Your task to perform on an android device: Is it going to rain this weekend? Image 0: 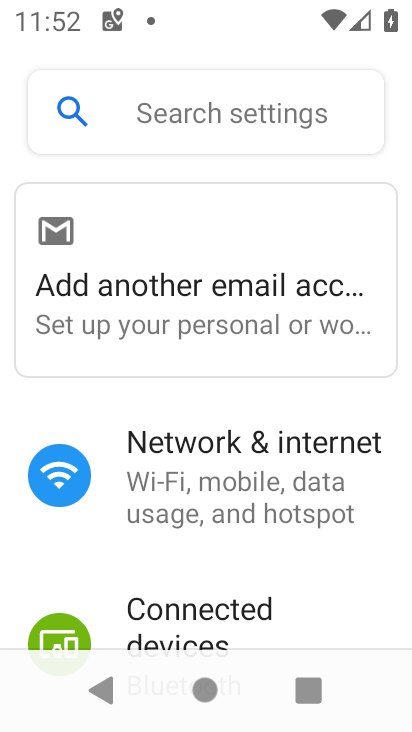
Step 0: press home button
Your task to perform on an android device: Is it going to rain this weekend? Image 1: 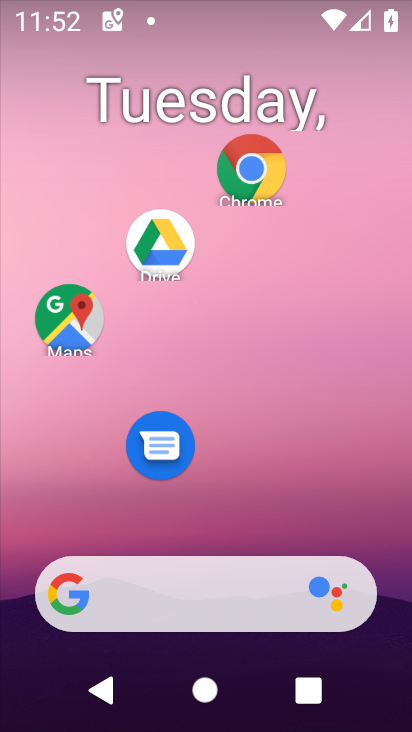
Step 1: drag from (239, 467) to (217, 119)
Your task to perform on an android device: Is it going to rain this weekend? Image 2: 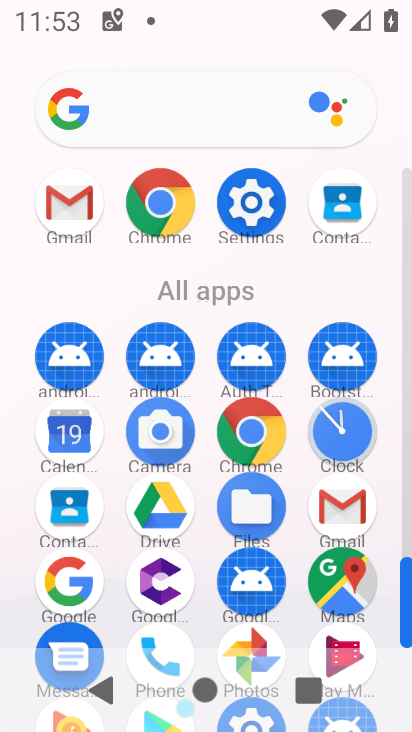
Step 2: drag from (198, 537) to (198, 241)
Your task to perform on an android device: Is it going to rain this weekend? Image 3: 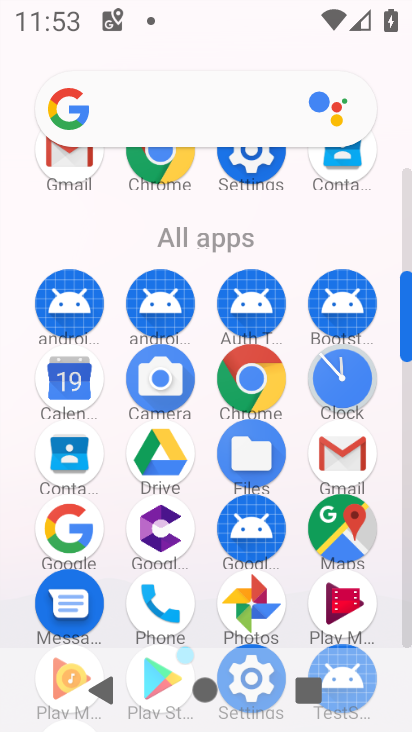
Step 3: click (72, 513)
Your task to perform on an android device: Is it going to rain this weekend? Image 4: 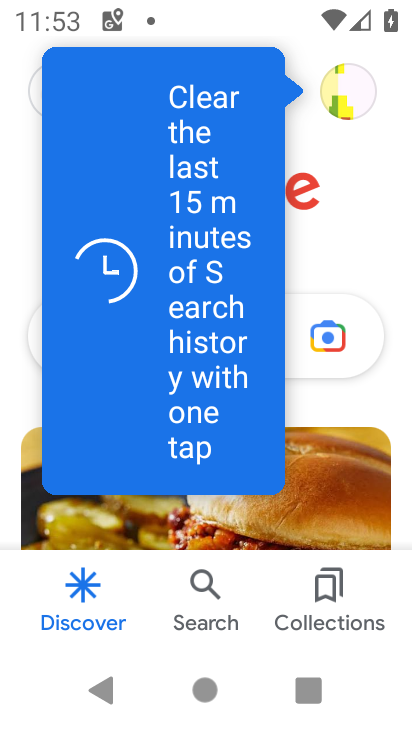
Step 4: click (76, 154)
Your task to perform on an android device: Is it going to rain this weekend? Image 5: 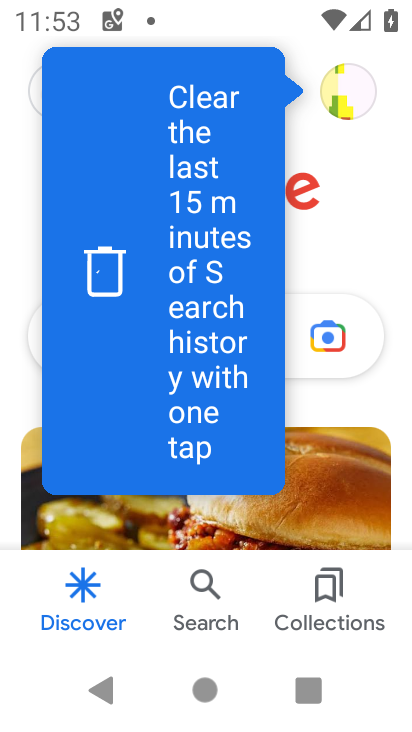
Step 5: click (24, 112)
Your task to perform on an android device: Is it going to rain this weekend? Image 6: 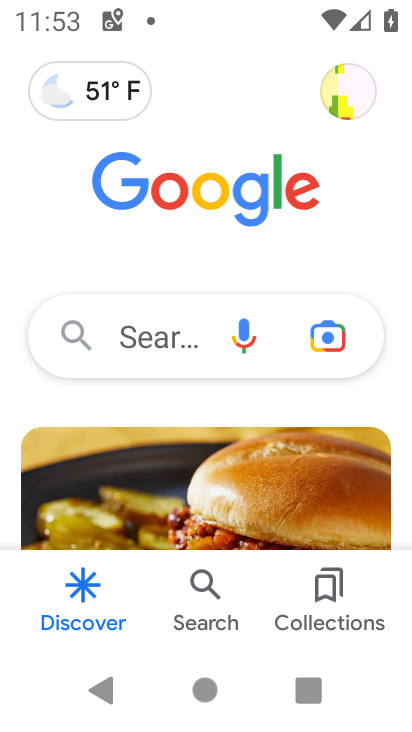
Step 6: click (74, 98)
Your task to perform on an android device: Is it going to rain this weekend? Image 7: 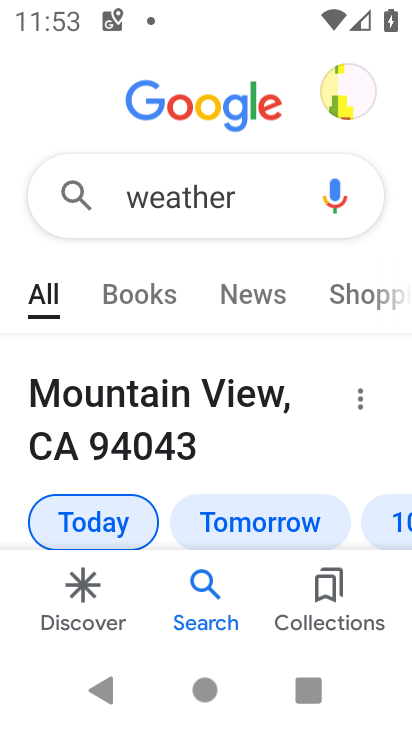
Step 7: click (385, 516)
Your task to perform on an android device: Is it going to rain this weekend? Image 8: 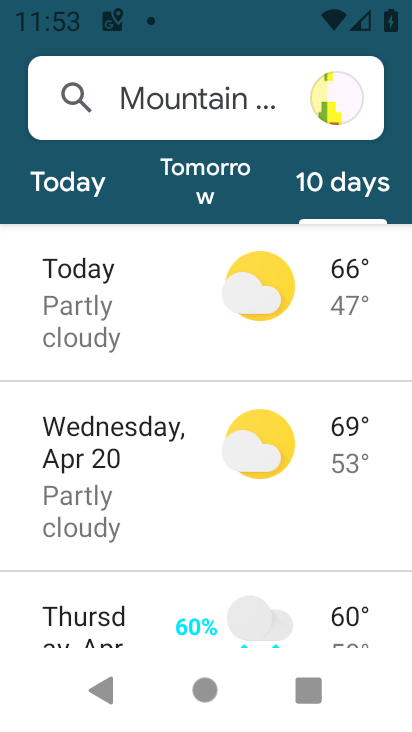
Step 8: task complete